Your task to perform on an android device: Empty the shopping cart on costco. Search for usb-c to usb-b on costco, select the first entry, add it to the cart, then select checkout. Image 0: 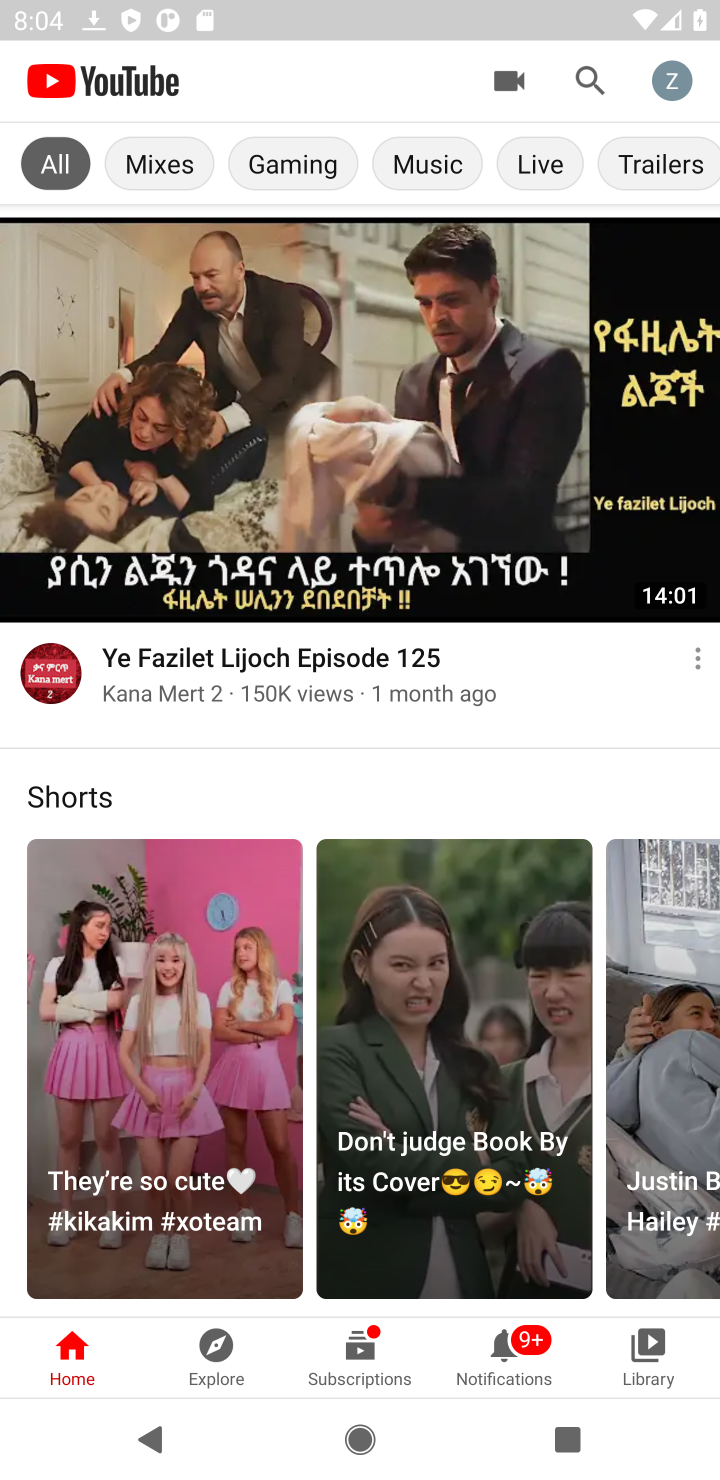
Step 0: press home button
Your task to perform on an android device: Empty the shopping cart on costco. Search for usb-c to usb-b on costco, select the first entry, add it to the cart, then select checkout. Image 1: 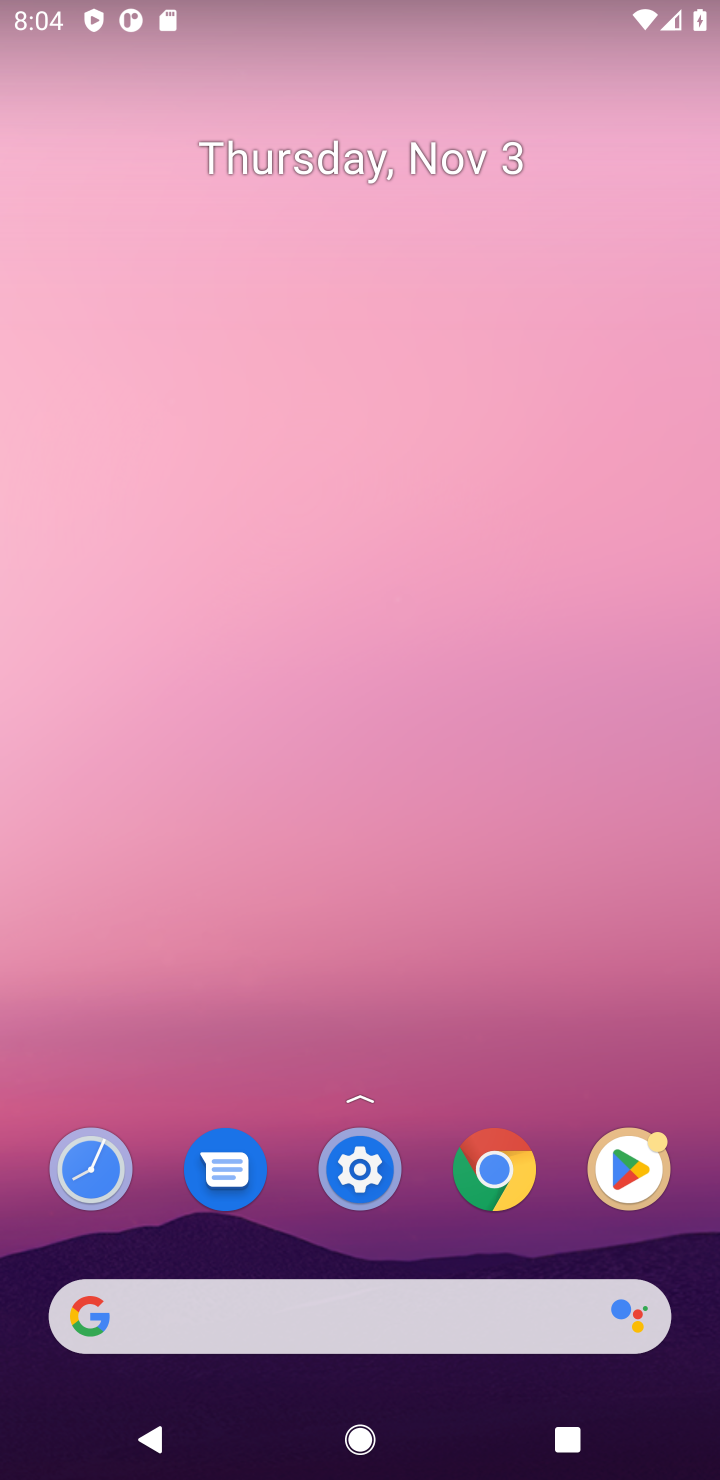
Step 1: click (504, 1181)
Your task to perform on an android device: Empty the shopping cart on costco. Search for usb-c to usb-b on costco, select the first entry, add it to the cart, then select checkout. Image 2: 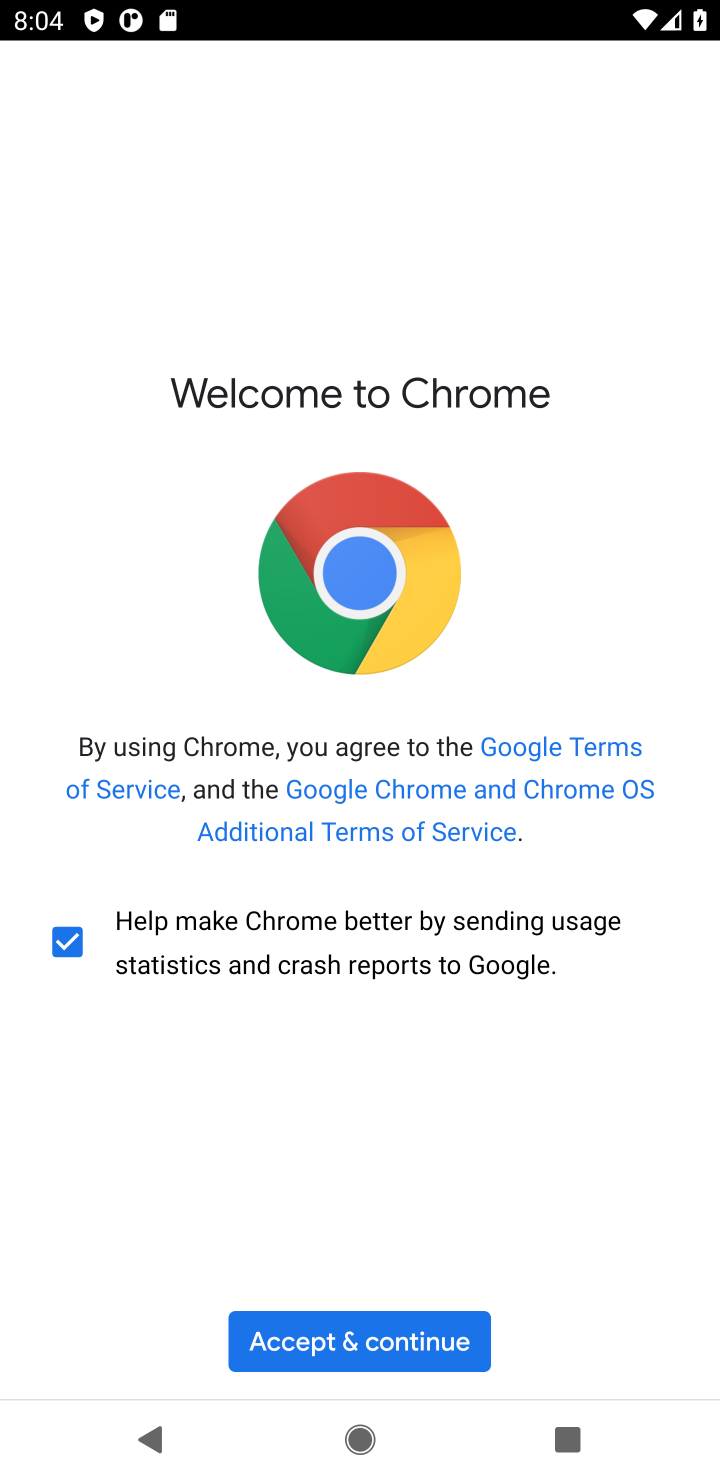
Step 2: click (361, 1325)
Your task to perform on an android device: Empty the shopping cart on costco. Search for usb-c to usb-b on costco, select the first entry, add it to the cart, then select checkout. Image 3: 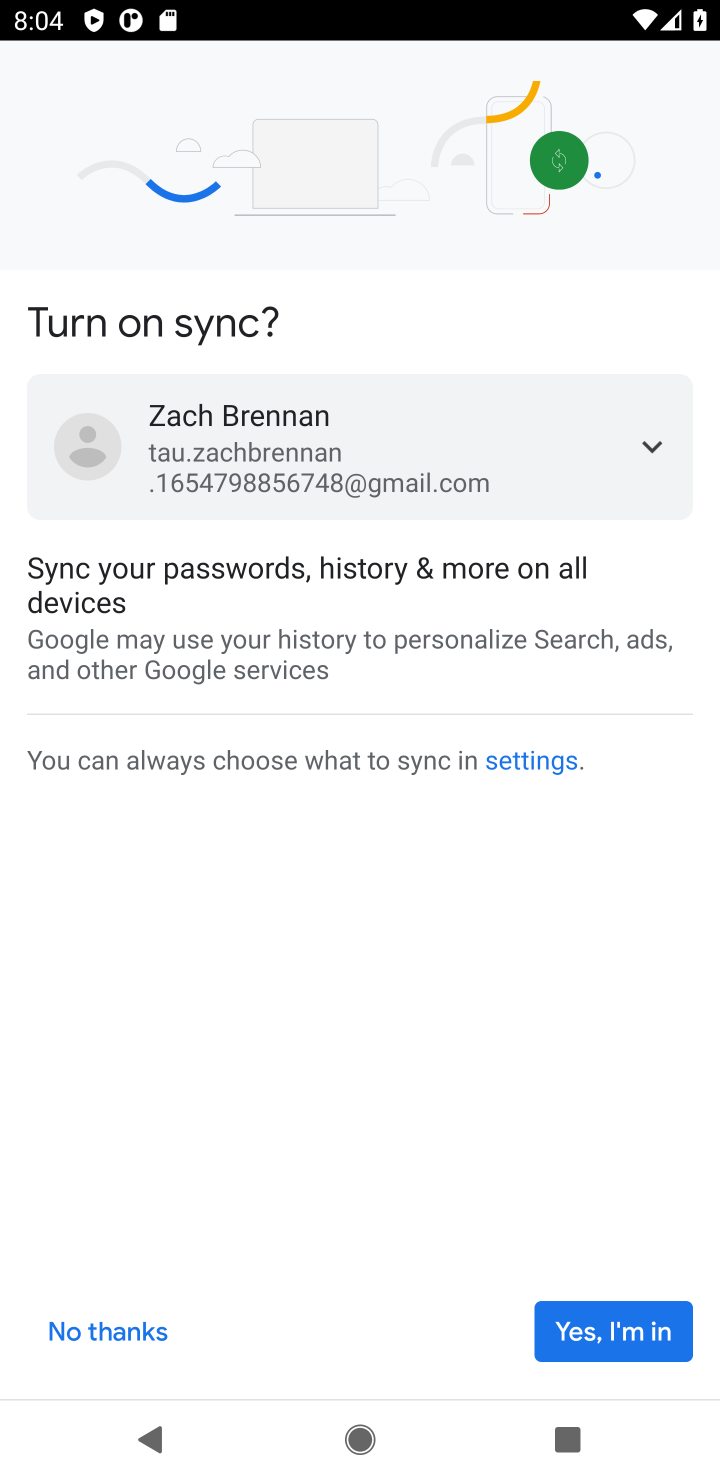
Step 3: click (598, 1344)
Your task to perform on an android device: Empty the shopping cart on costco. Search for usb-c to usb-b on costco, select the first entry, add it to the cart, then select checkout. Image 4: 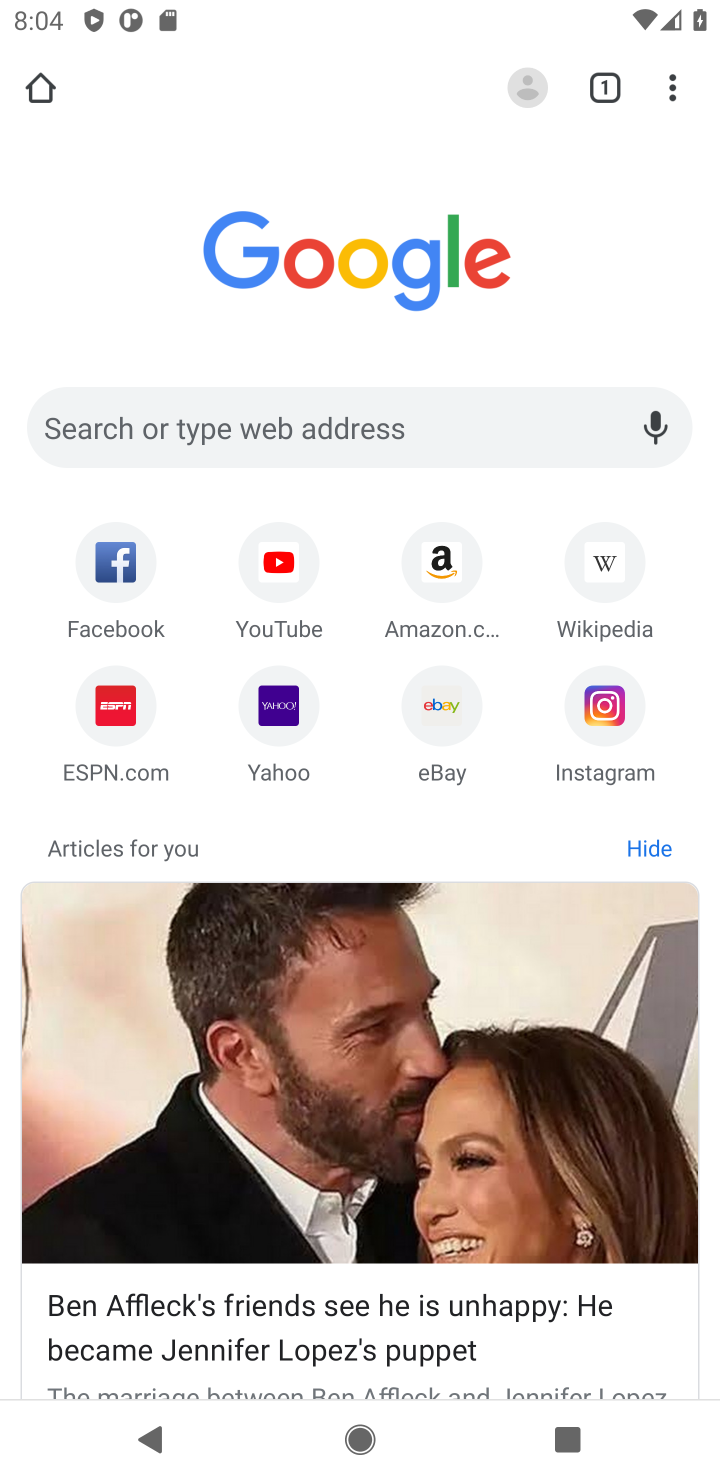
Step 4: click (128, 431)
Your task to perform on an android device: Empty the shopping cart on costco. Search for usb-c to usb-b on costco, select the first entry, add it to the cart, then select checkout. Image 5: 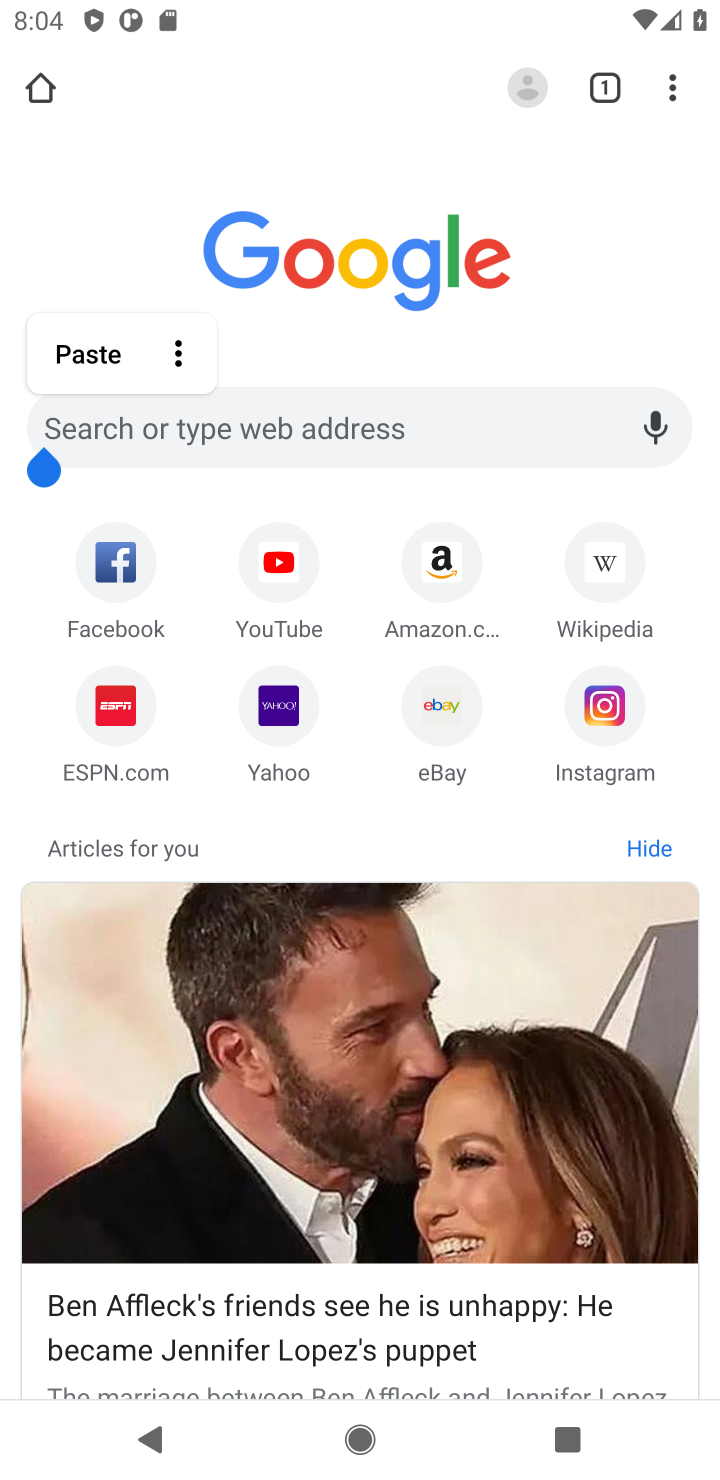
Step 5: click (128, 429)
Your task to perform on an android device: Empty the shopping cart on costco. Search for usb-c to usb-b on costco, select the first entry, add it to the cart, then select checkout. Image 6: 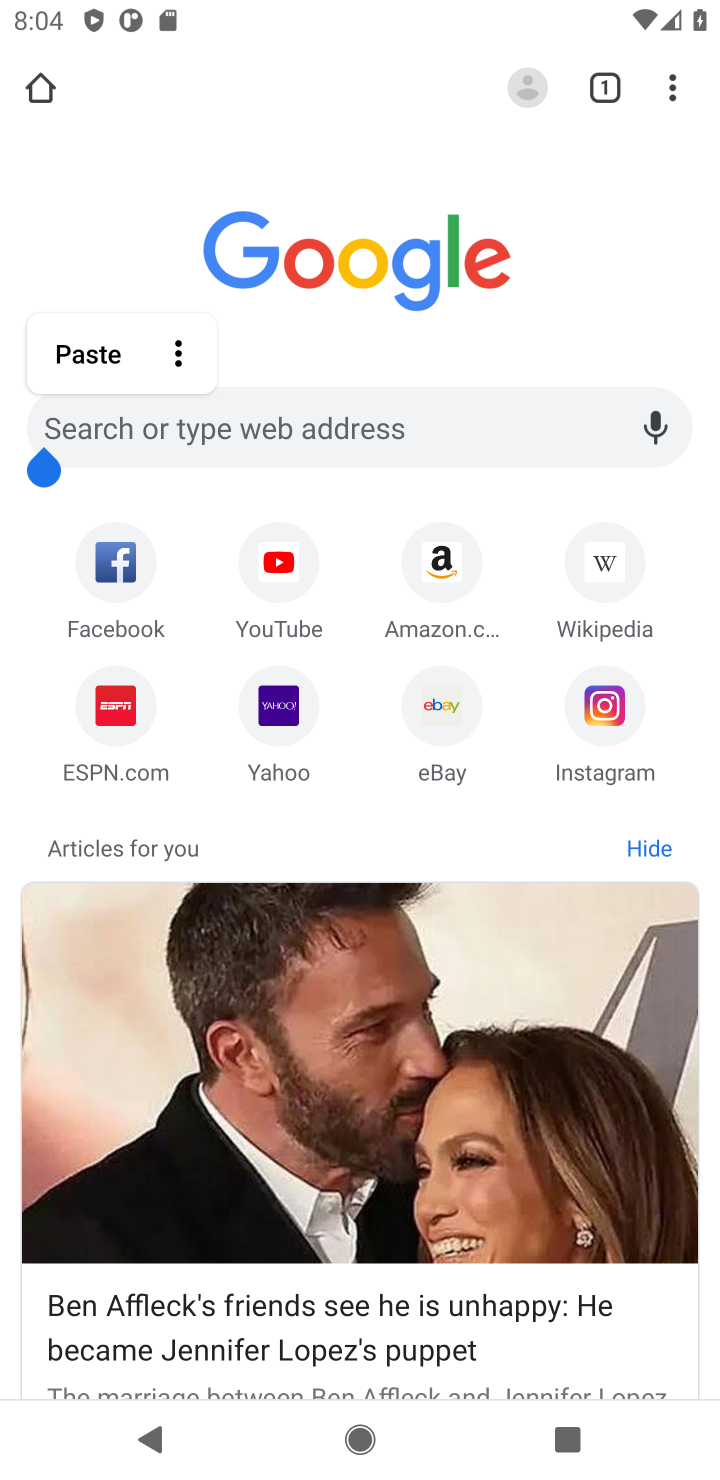
Step 6: click (252, 418)
Your task to perform on an android device: Empty the shopping cart on costco. Search for usb-c to usb-b on costco, select the first entry, add it to the cart, then select checkout. Image 7: 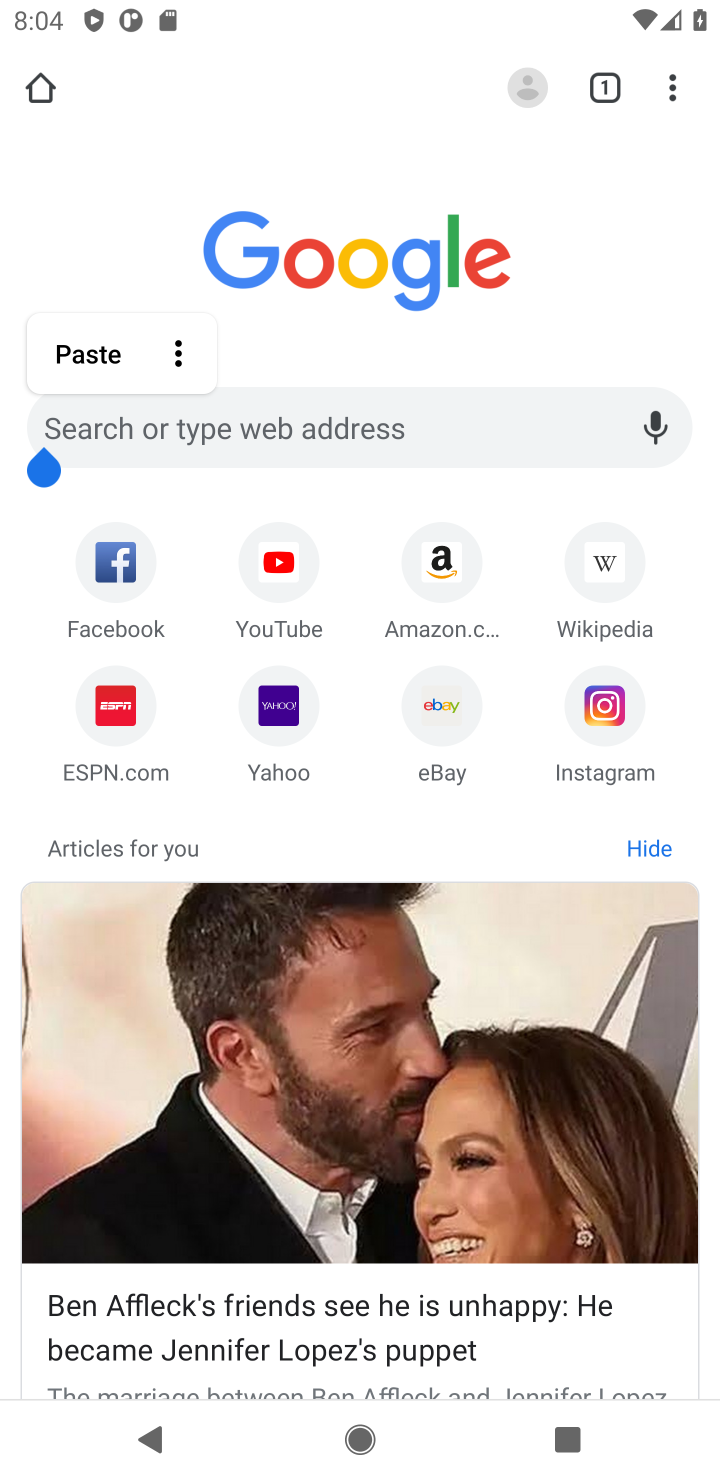
Step 7: click (103, 434)
Your task to perform on an android device: Empty the shopping cart on costco. Search for usb-c to usb-b on costco, select the first entry, add it to the cart, then select checkout. Image 8: 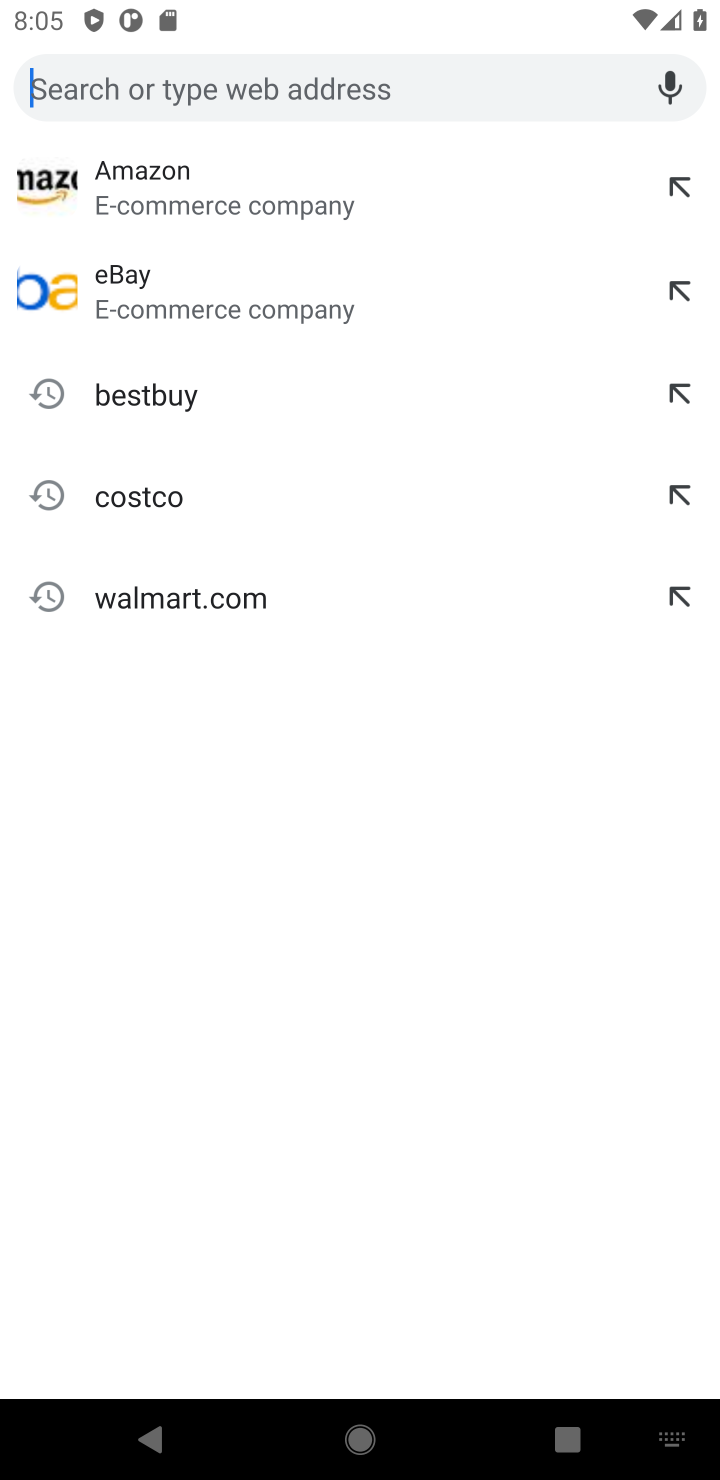
Step 8: click (142, 490)
Your task to perform on an android device: Empty the shopping cart on costco. Search for usb-c to usb-b on costco, select the first entry, add it to the cart, then select checkout. Image 9: 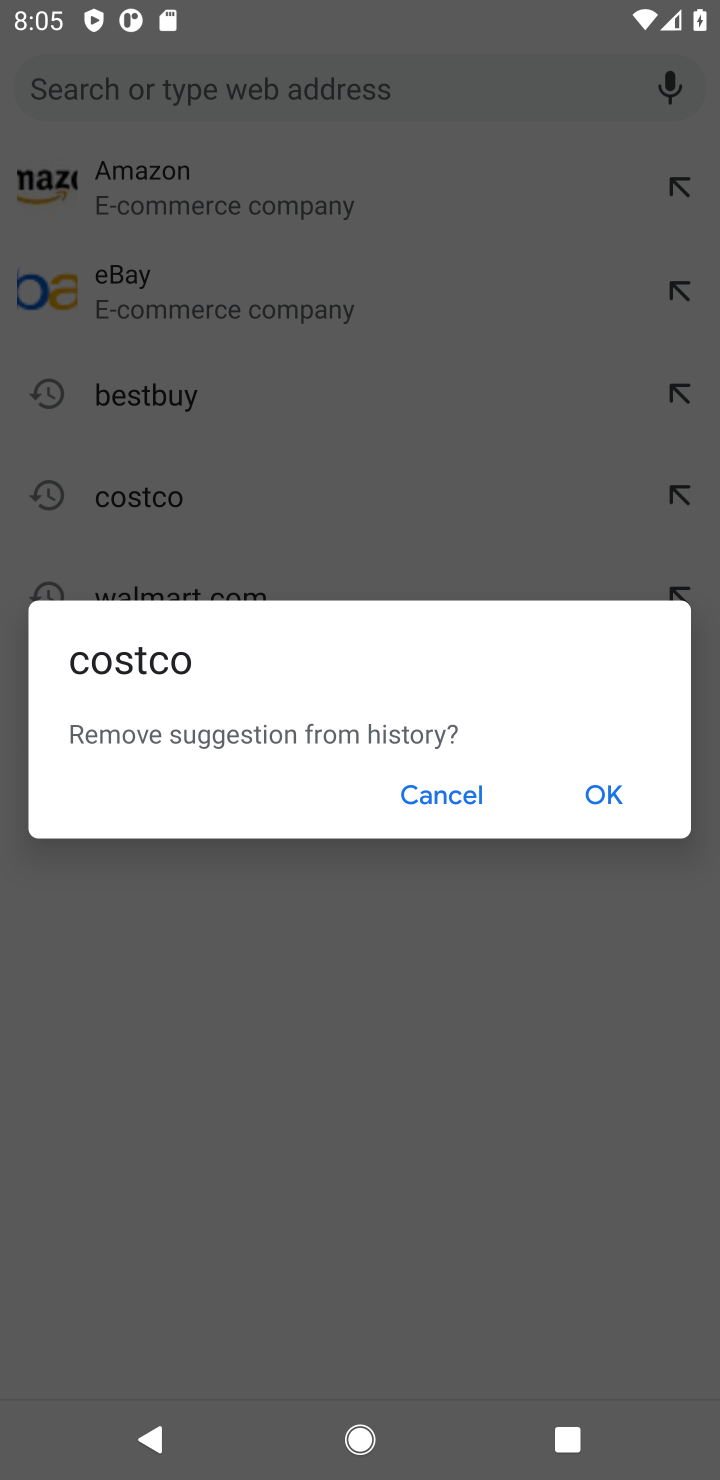
Step 9: click (435, 792)
Your task to perform on an android device: Empty the shopping cart on costco. Search for usb-c to usb-b on costco, select the first entry, add it to the cart, then select checkout. Image 10: 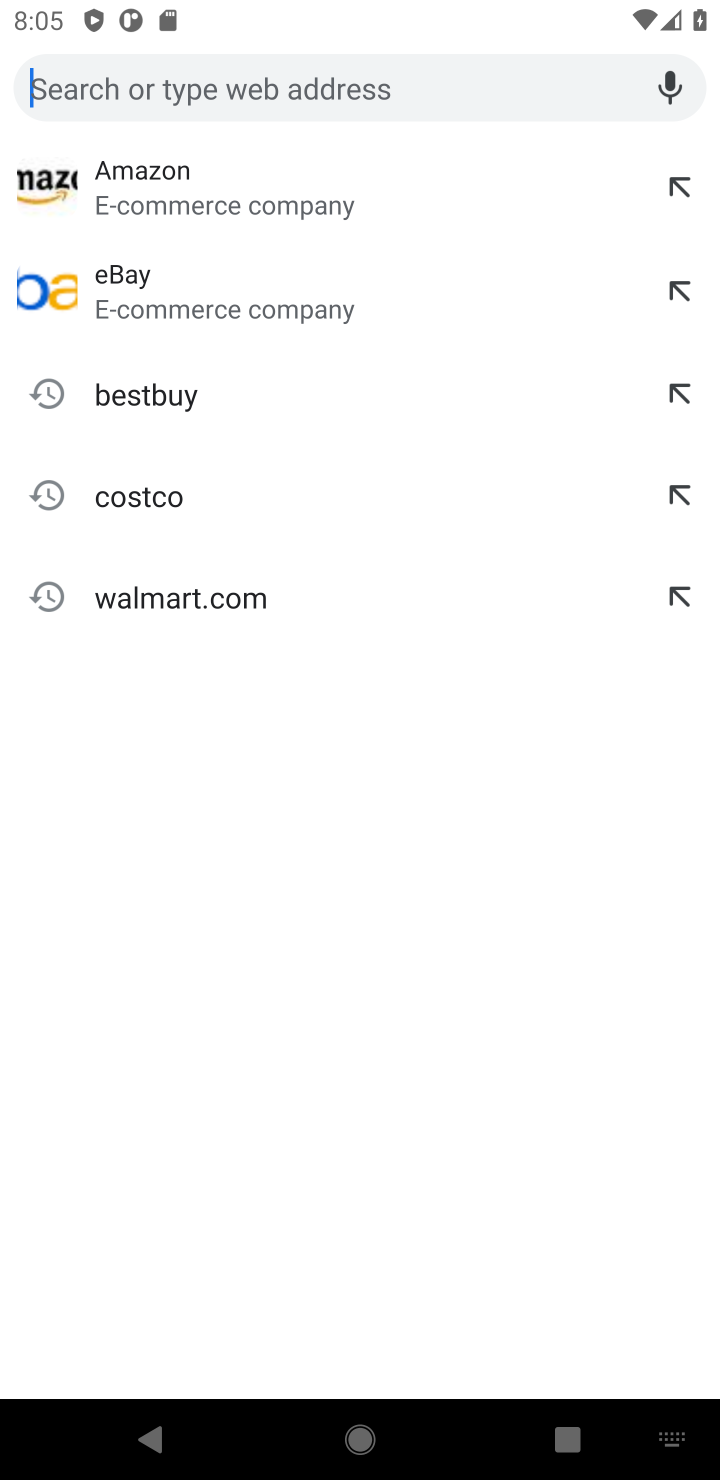
Step 10: click (130, 496)
Your task to perform on an android device: Empty the shopping cart on costco. Search for usb-c to usb-b on costco, select the first entry, add it to the cart, then select checkout. Image 11: 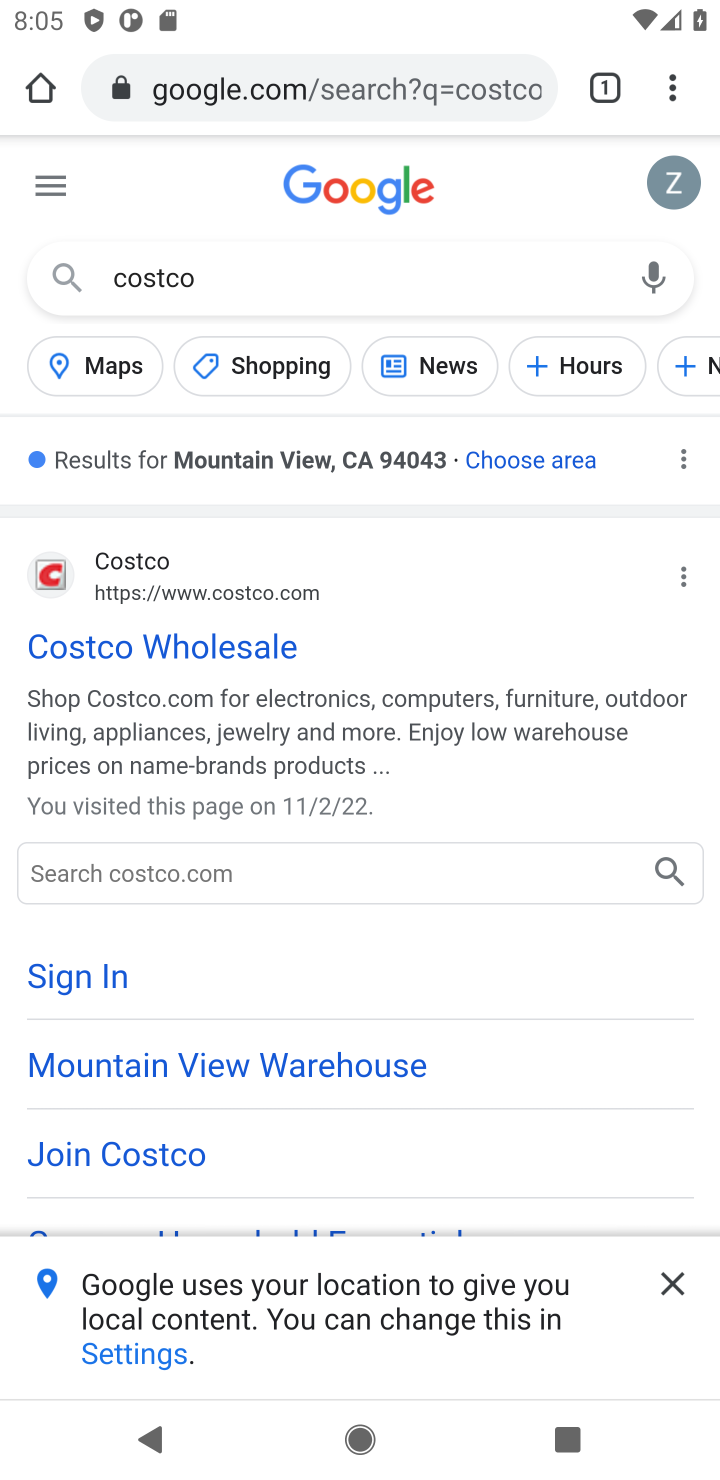
Step 11: click (268, 648)
Your task to perform on an android device: Empty the shopping cart on costco. Search for usb-c to usb-b on costco, select the first entry, add it to the cart, then select checkout. Image 12: 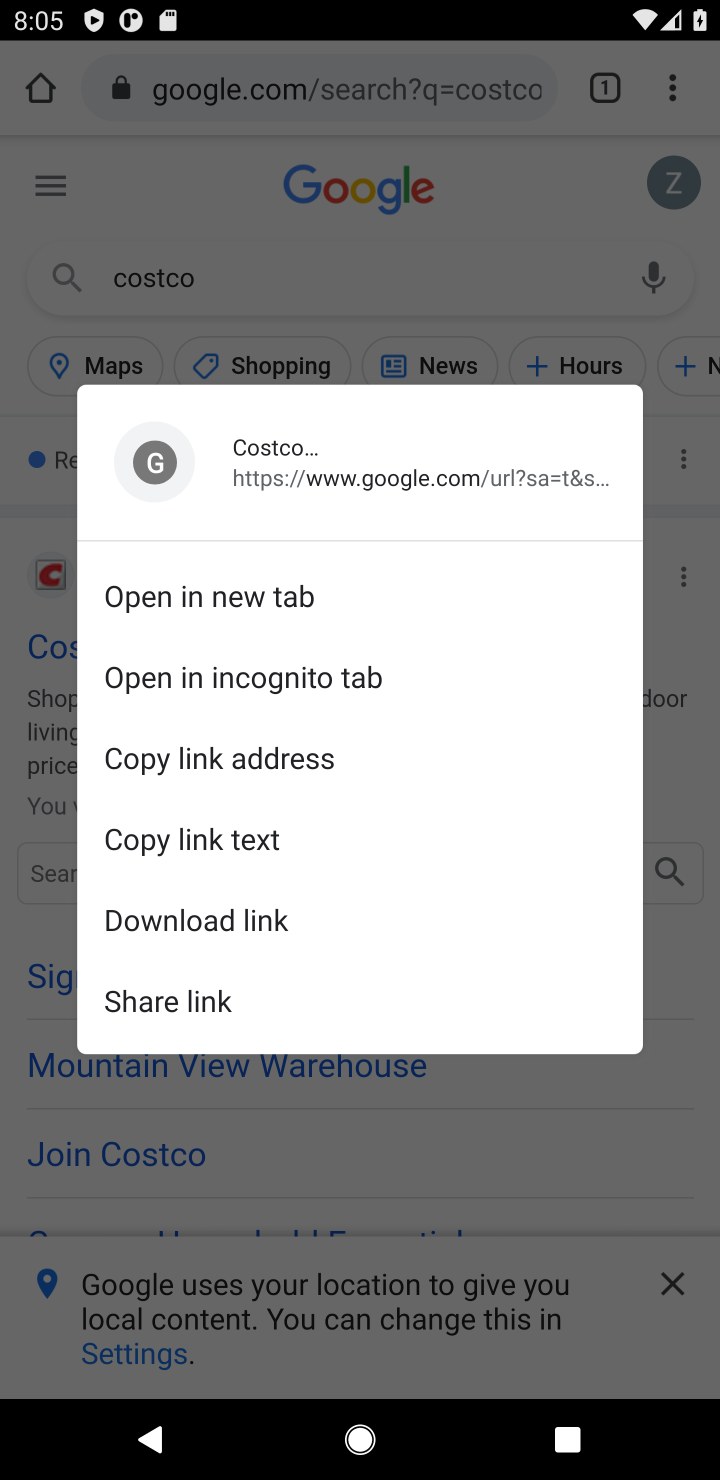
Step 12: click (40, 639)
Your task to perform on an android device: Empty the shopping cart on costco. Search for usb-c to usb-b on costco, select the first entry, add it to the cart, then select checkout. Image 13: 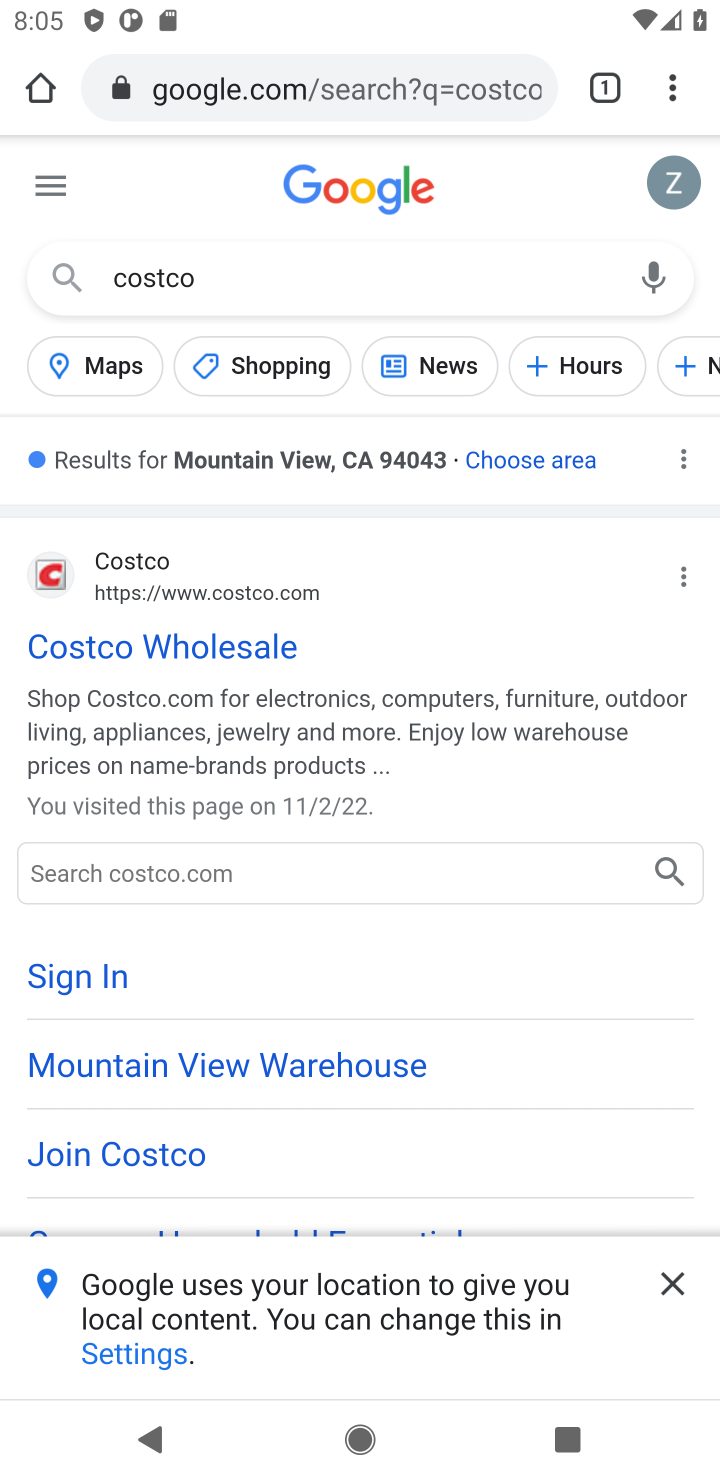
Step 13: click (86, 649)
Your task to perform on an android device: Empty the shopping cart on costco. Search for usb-c to usb-b on costco, select the first entry, add it to the cart, then select checkout. Image 14: 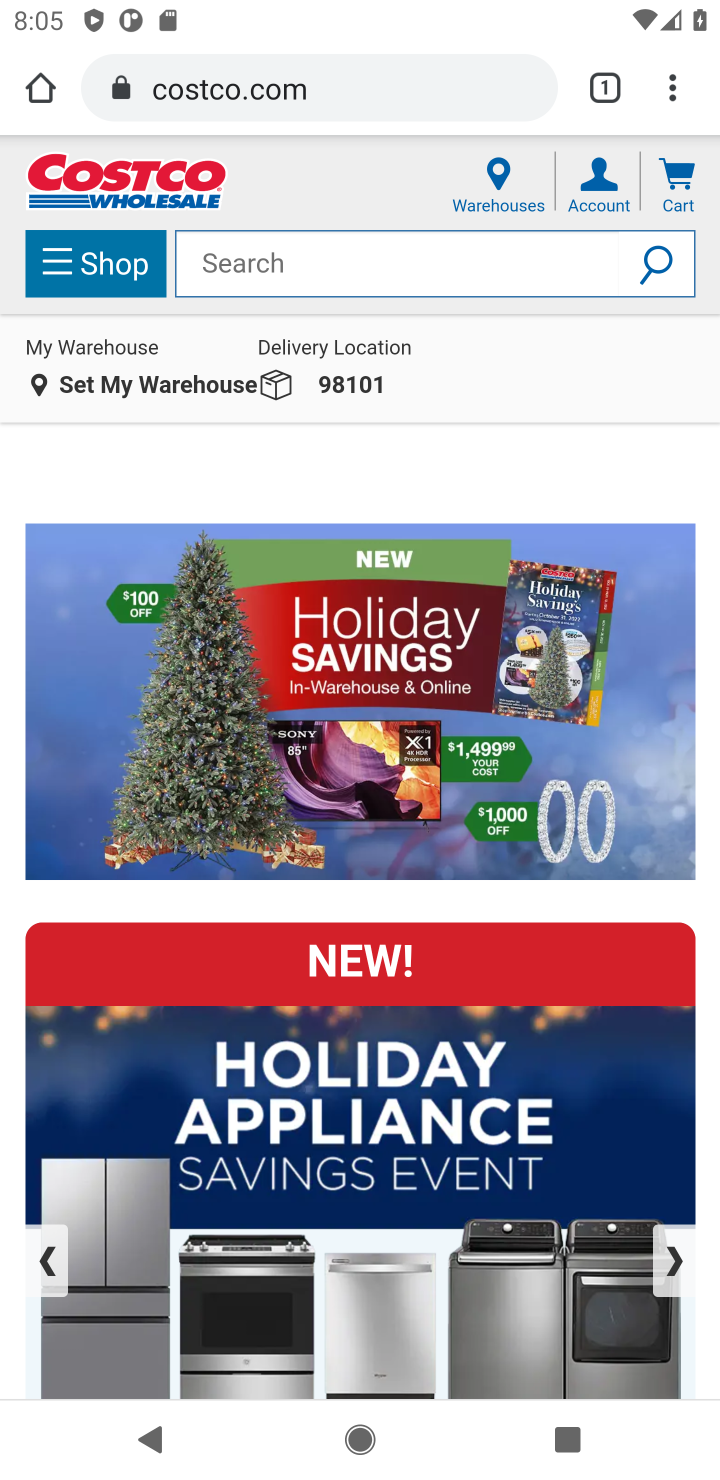
Step 14: click (476, 254)
Your task to perform on an android device: Empty the shopping cart on costco. Search for usb-c to usb-b on costco, select the first entry, add it to the cart, then select checkout. Image 15: 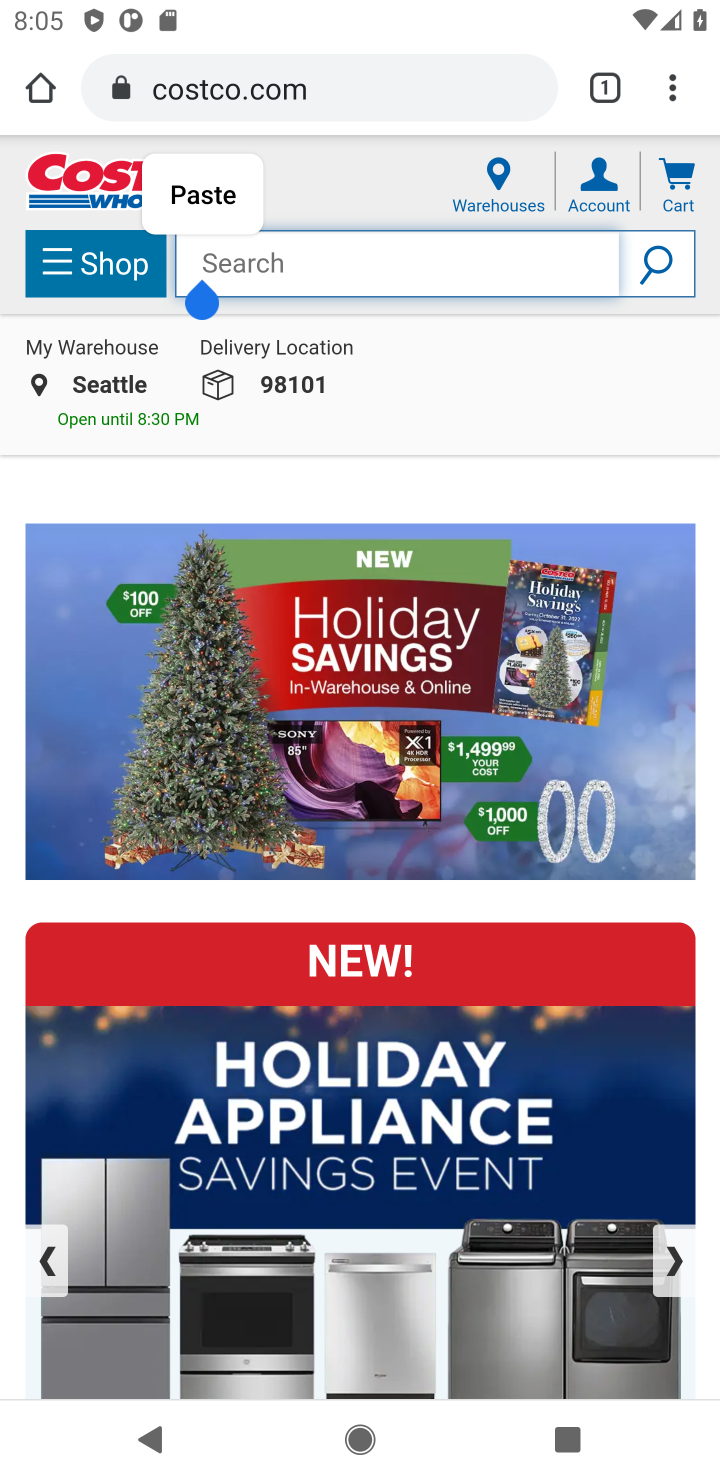
Step 15: type "usb-c to usb-b"
Your task to perform on an android device: Empty the shopping cart on costco. Search for usb-c to usb-b on costco, select the first entry, add it to the cart, then select checkout. Image 16: 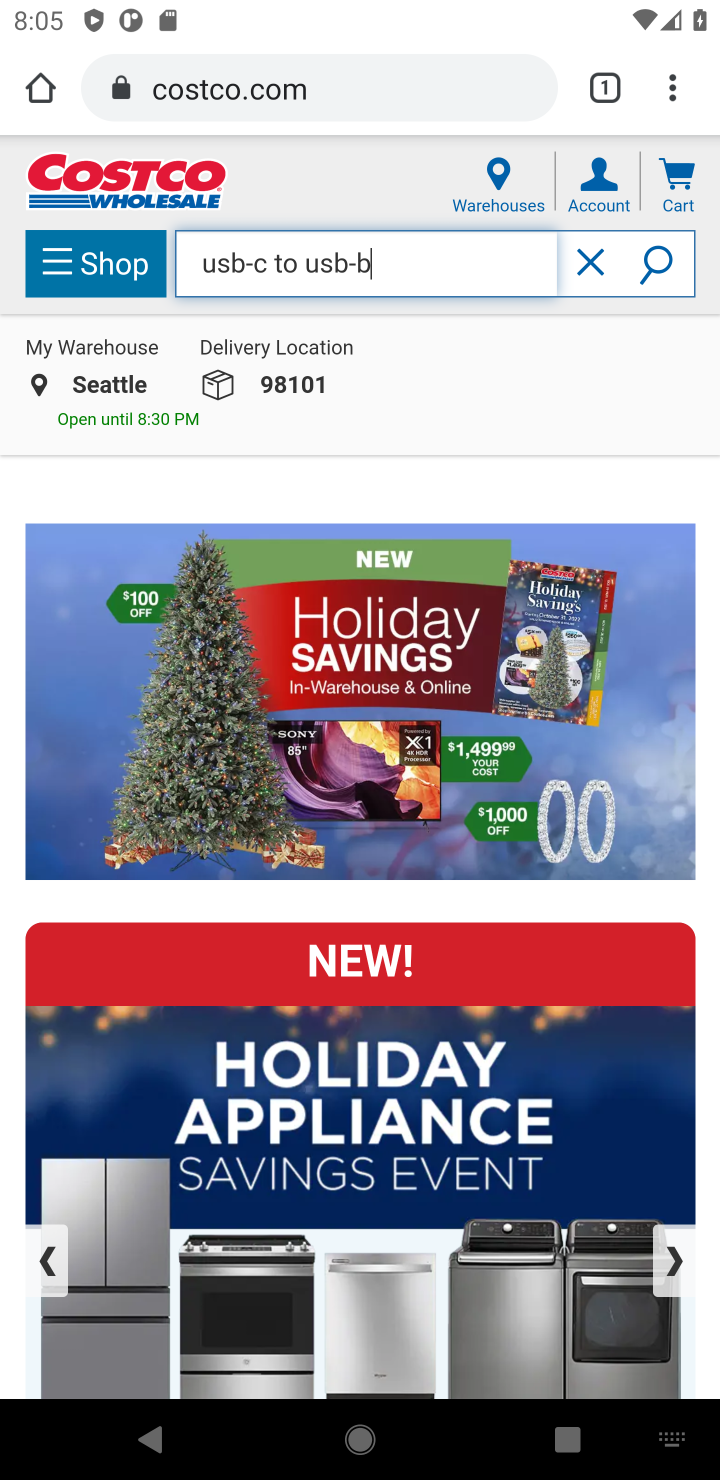
Step 16: press enter
Your task to perform on an android device: Empty the shopping cart on costco. Search for usb-c to usb-b on costco, select the first entry, add it to the cart, then select checkout. Image 17: 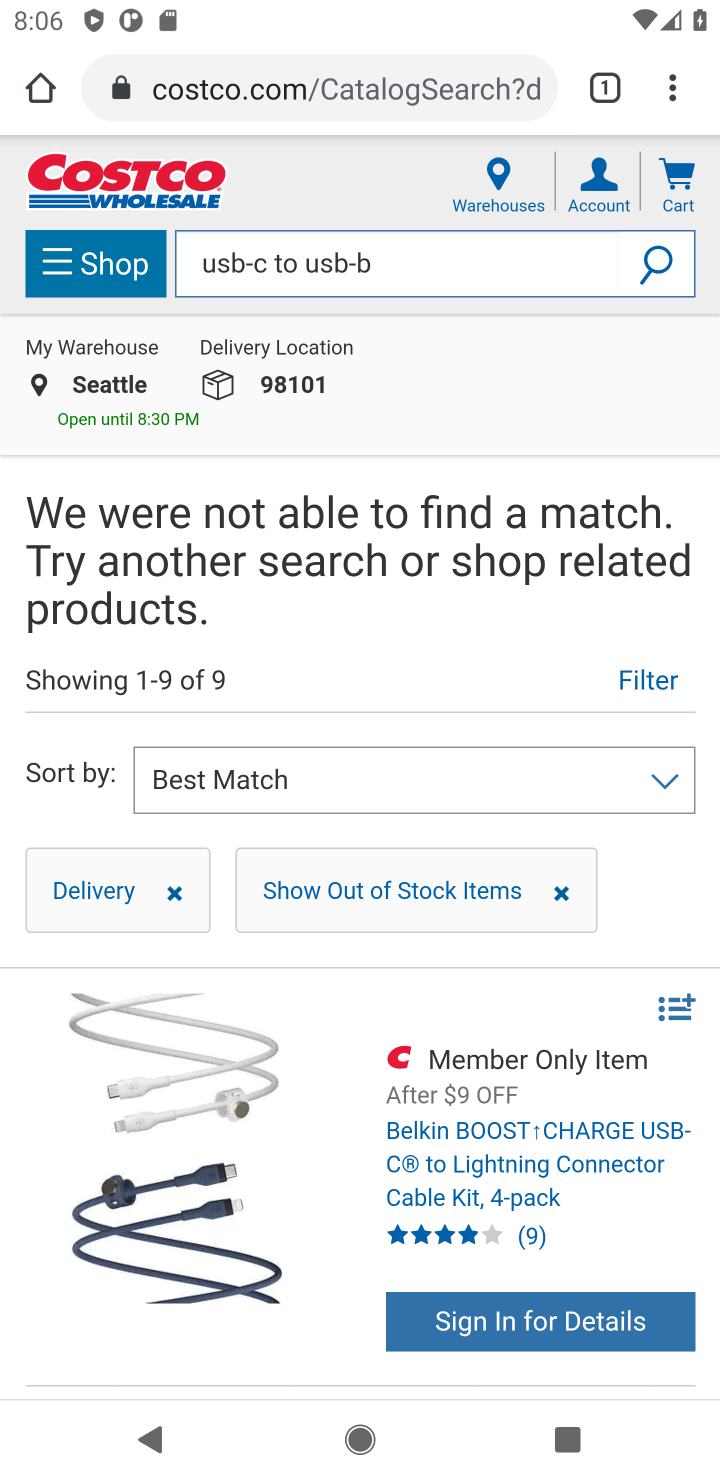
Step 17: task complete